Your task to perform on an android device: Search for the best rated headphones on Amazon. Image 0: 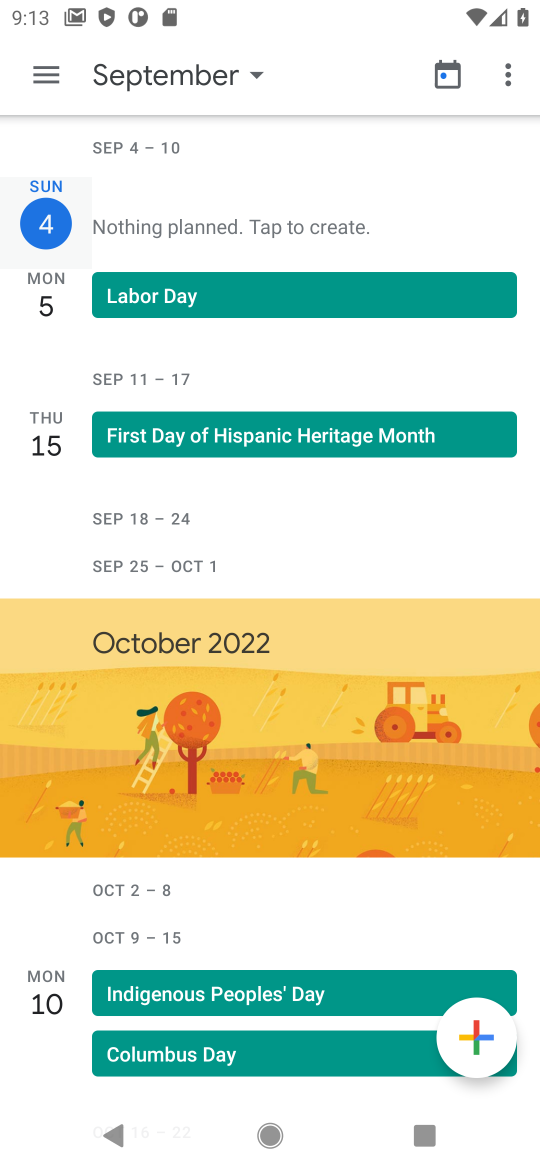
Step 0: press back button
Your task to perform on an android device: Search for the best rated headphones on Amazon. Image 1: 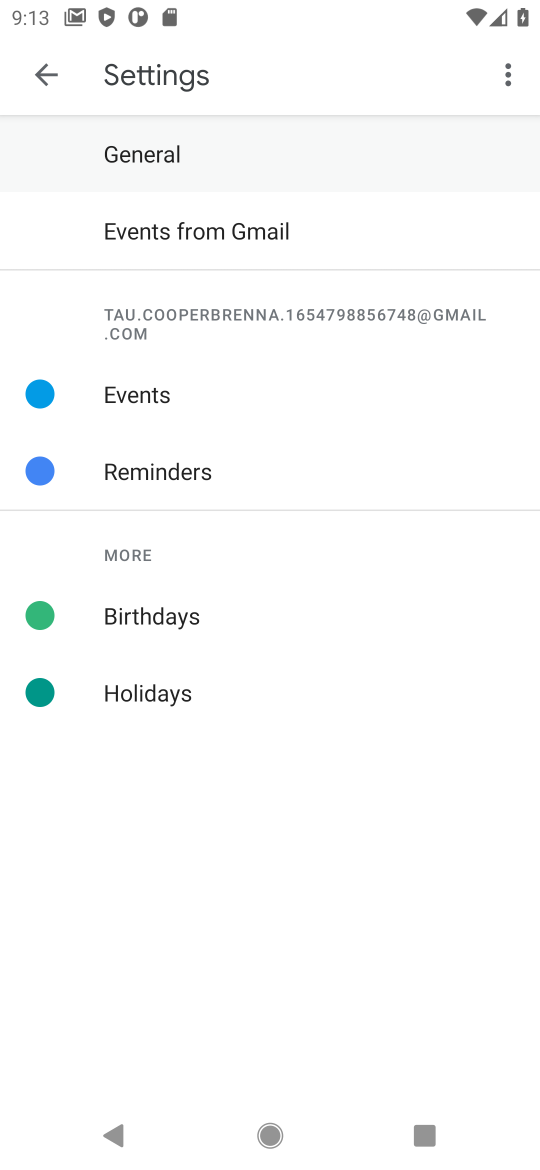
Step 1: press back button
Your task to perform on an android device: Search for the best rated headphones on Amazon. Image 2: 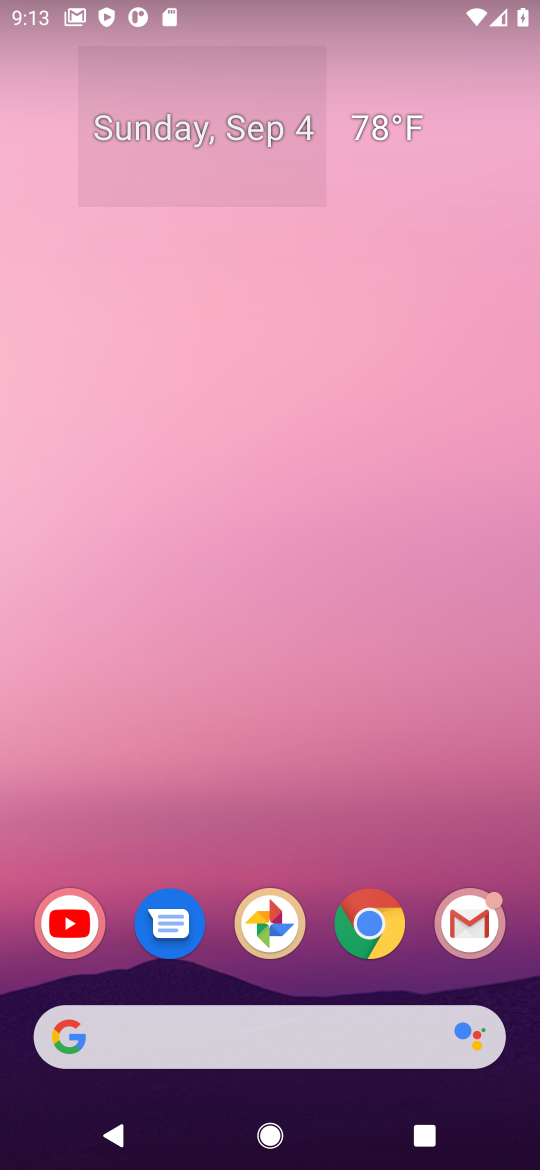
Step 2: click (142, 1040)
Your task to perform on an android device: Search for the best rated headphones on Amazon. Image 3: 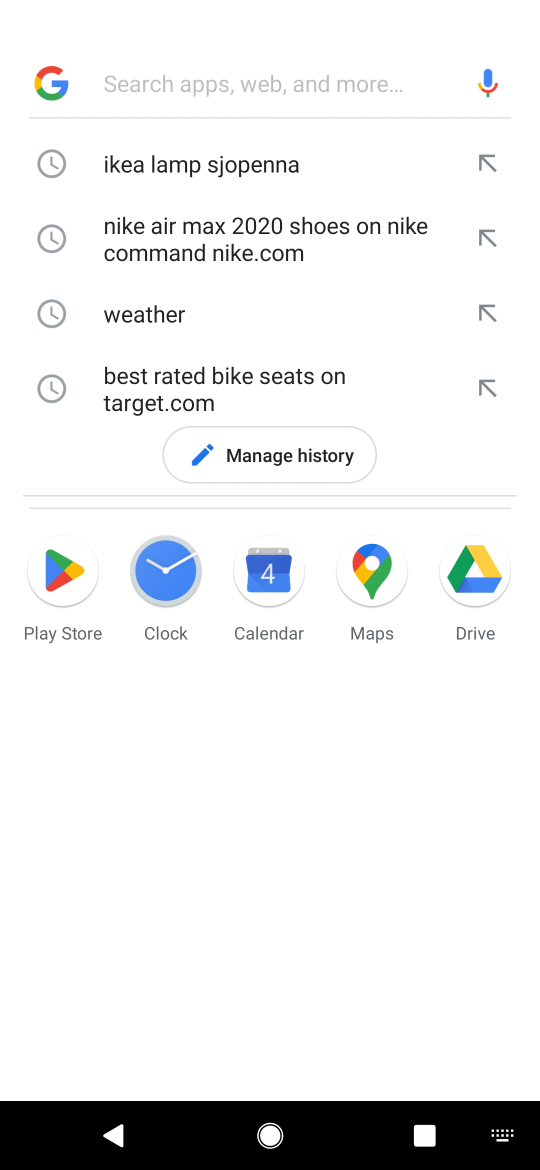
Step 3: type "the best rated headphones on Amazon."
Your task to perform on an android device: Search for the best rated headphones on Amazon. Image 4: 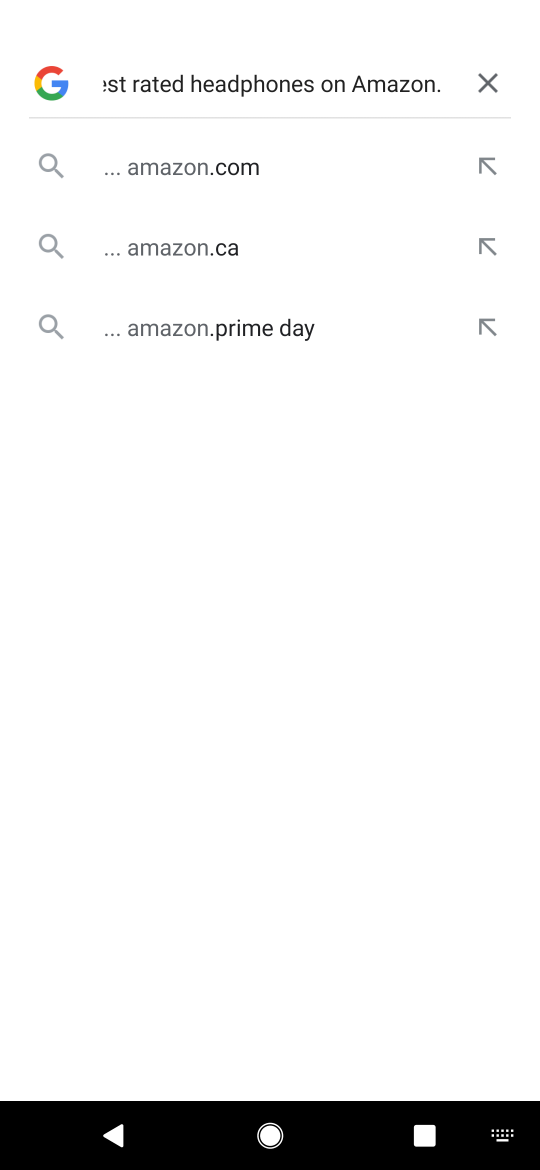
Step 4: type ""
Your task to perform on an android device: Search for the best rated headphones on Amazon. Image 5: 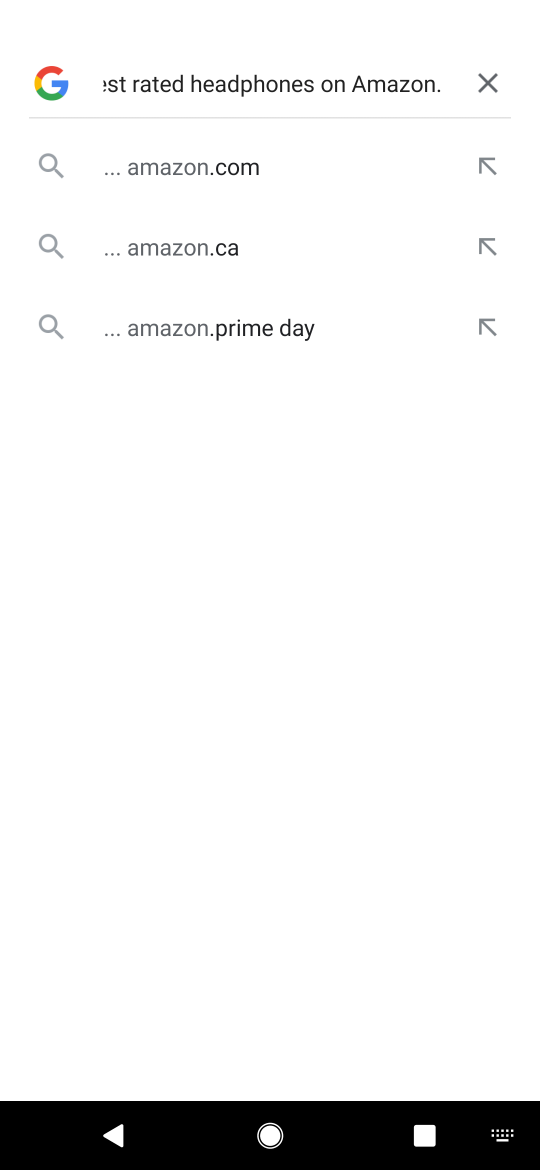
Step 5: click (231, 163)
Your task to perform on an android device: Search for the best rated headphones on Amazon. Image 6: 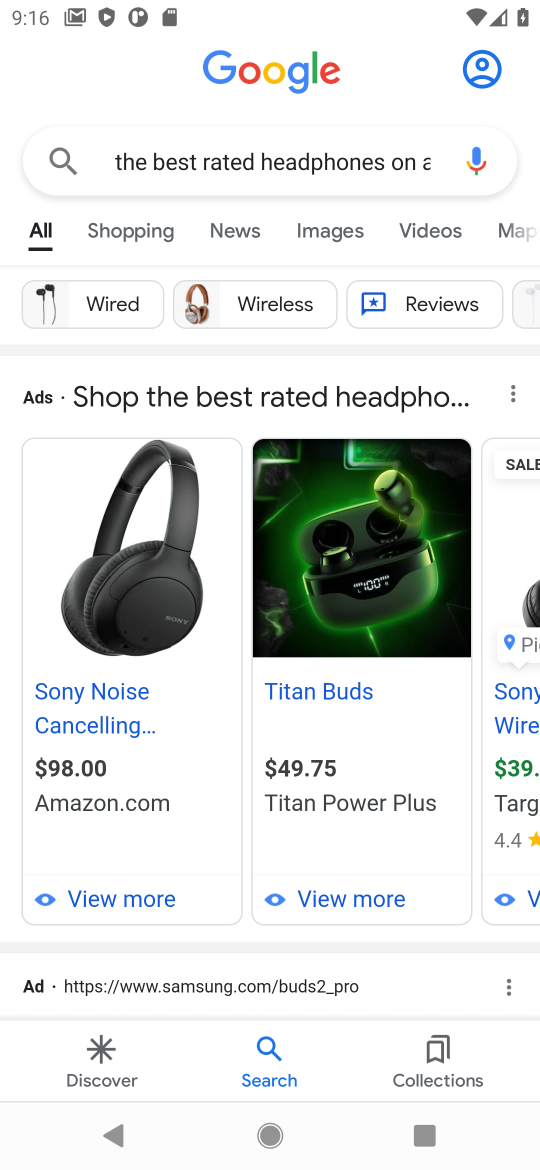
Step 6: drag from (8, 931) to (70, 713)
Your task to perform on an android device: Search for the best rated headphones on Amazon. Image 7: 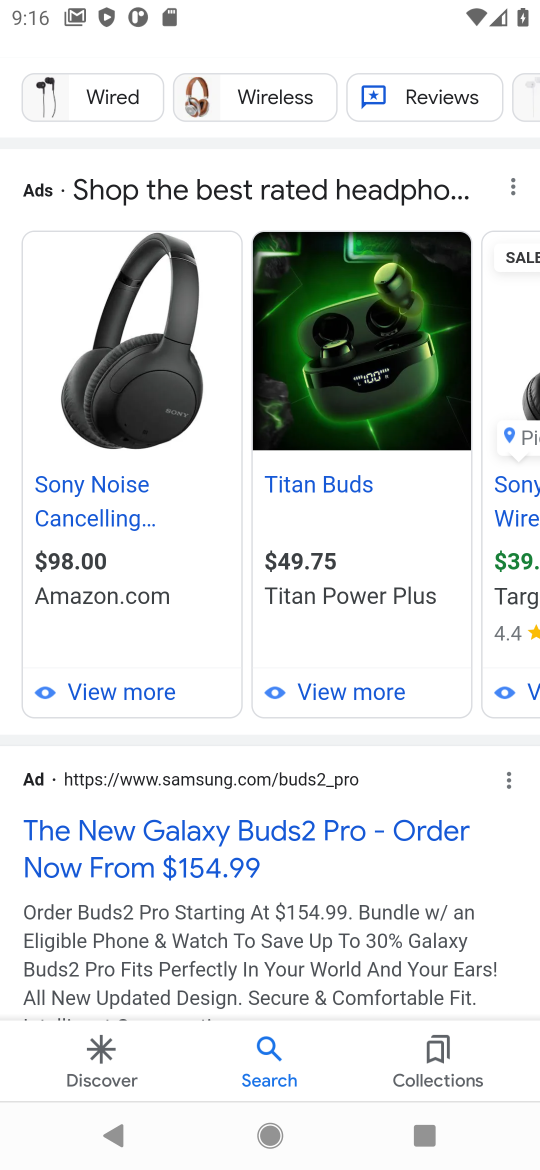
Step 7: drag from (501, 1008) to (411, 581)
Your task to perform on an android device: Search for the best rated headphones on Amazon. Image 8: 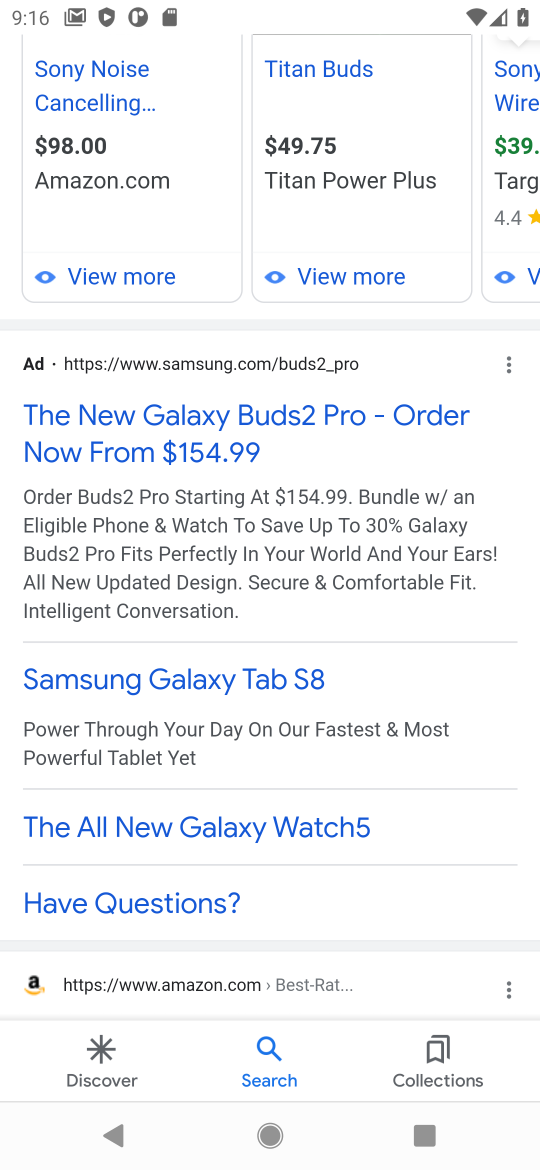
Step 8: drag from (509, 912) to (440, 389)
Your task to perform on an android device: Search for the best rated headphones on Amazon. Image 9: 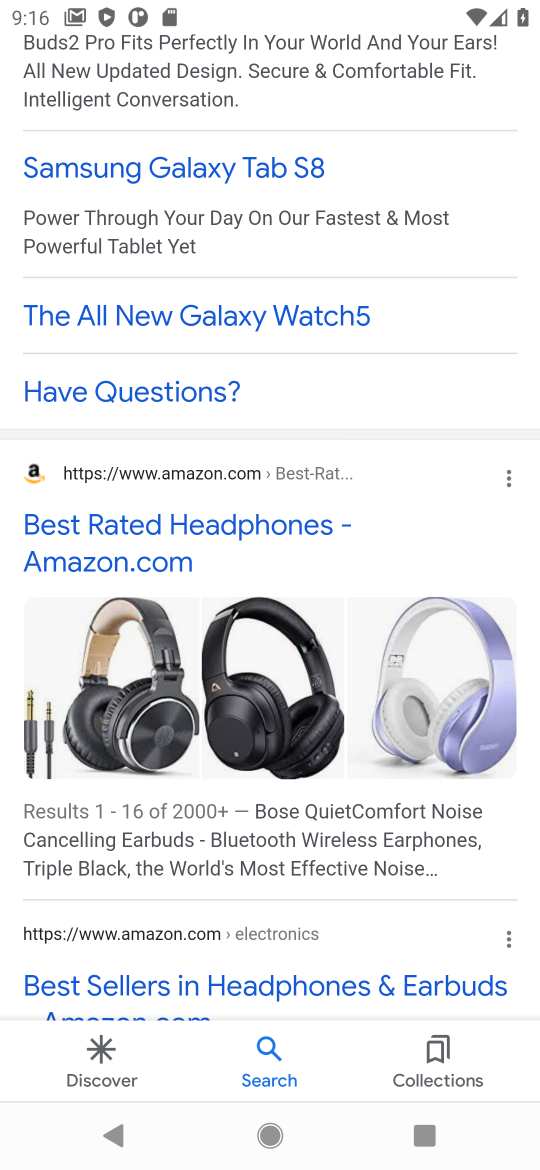
Step 9: click (299, 244)
Your task to perform on an android device: Search for the best rated headphones on Amazon. Image 10: 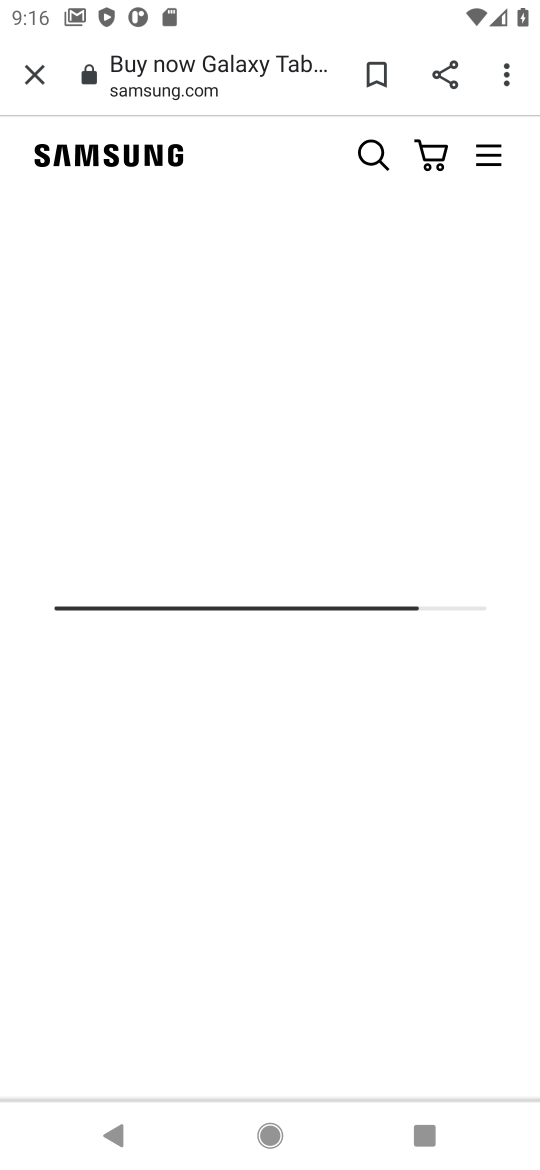
Step 10: task complete